Your task to perform on an android device: What's a good restaurant in Los Angeles? Image 0: 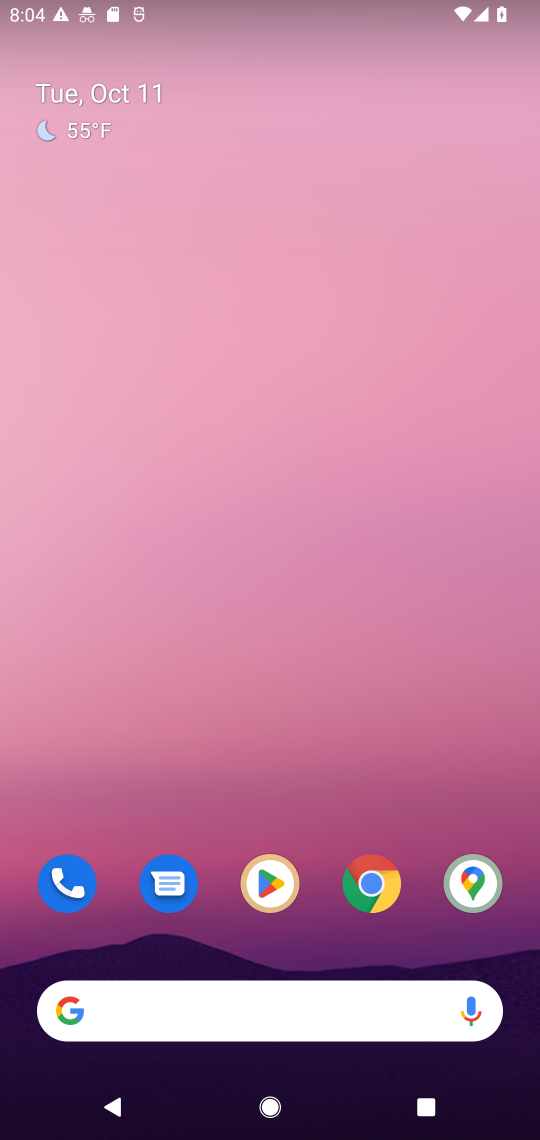
Step 0: drag from (316, 961) to (406, 183)
Your task to perform on an android device: What's a good restaurant in Los Angeles? Image 1: 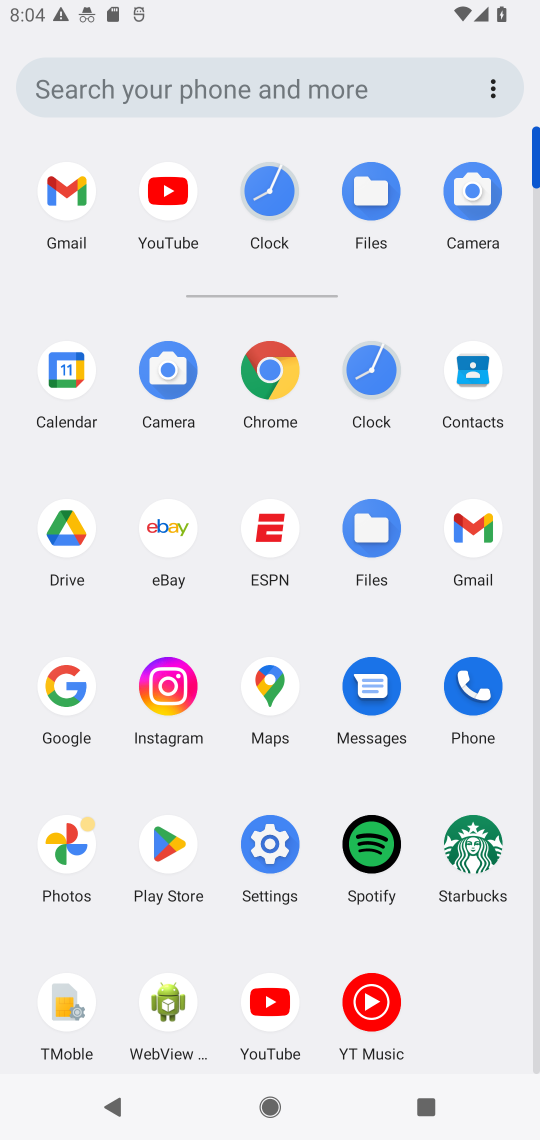
Step 1: click (264, 367)
Your task to perform on an android device: What's a good restaurant in Los Angeles? Image 2: 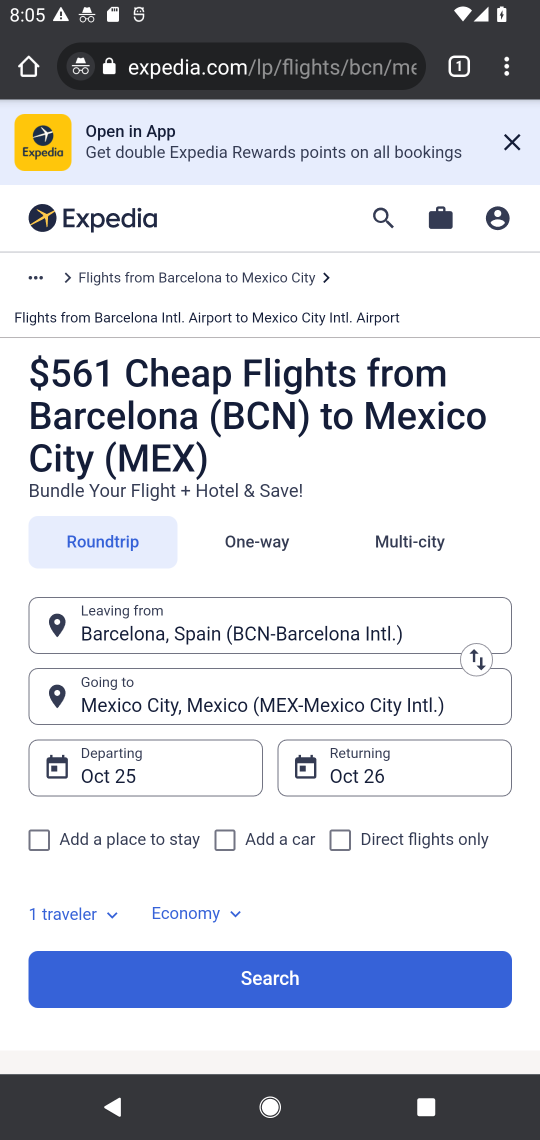
Step 2: click (281, 67)
Your task to perform on an android device: What's a good restaurant in Los Angeles? Image 3: 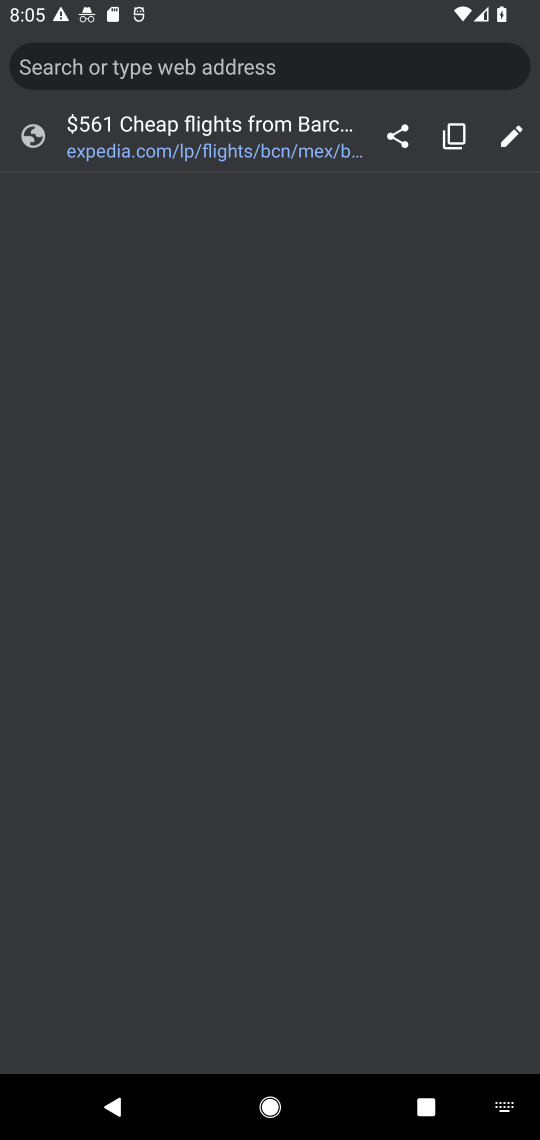
Step 3: type "What's good restaurant in Los Angeles?"
Your task to perform on an android device: What's a good restaurant in Los Angeles? Image 4: 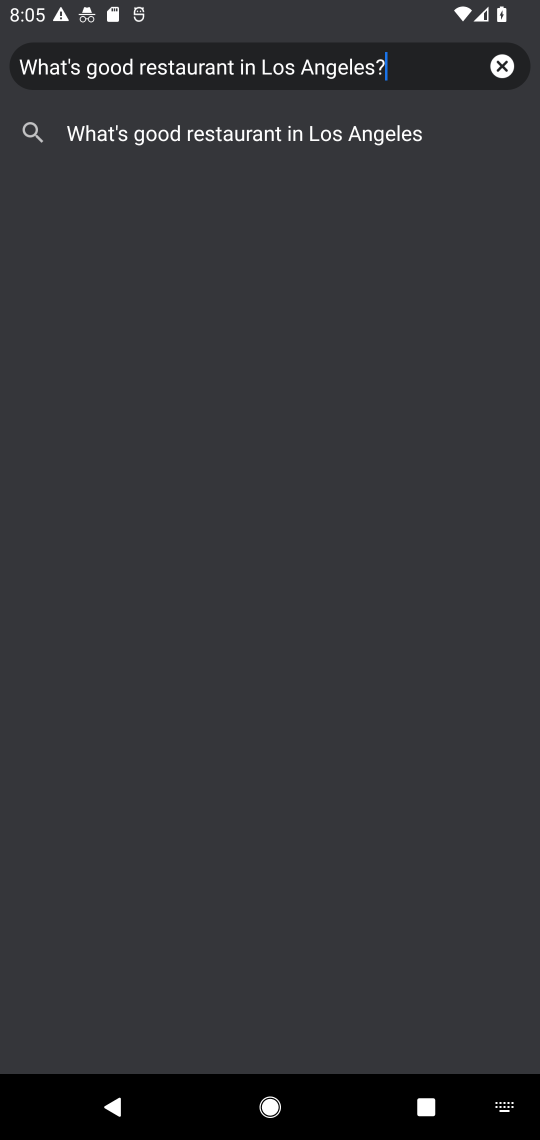
Step 4: press enter
Your task to perform on an android device: What's a good restaurant in Los Angeles? Image 5: 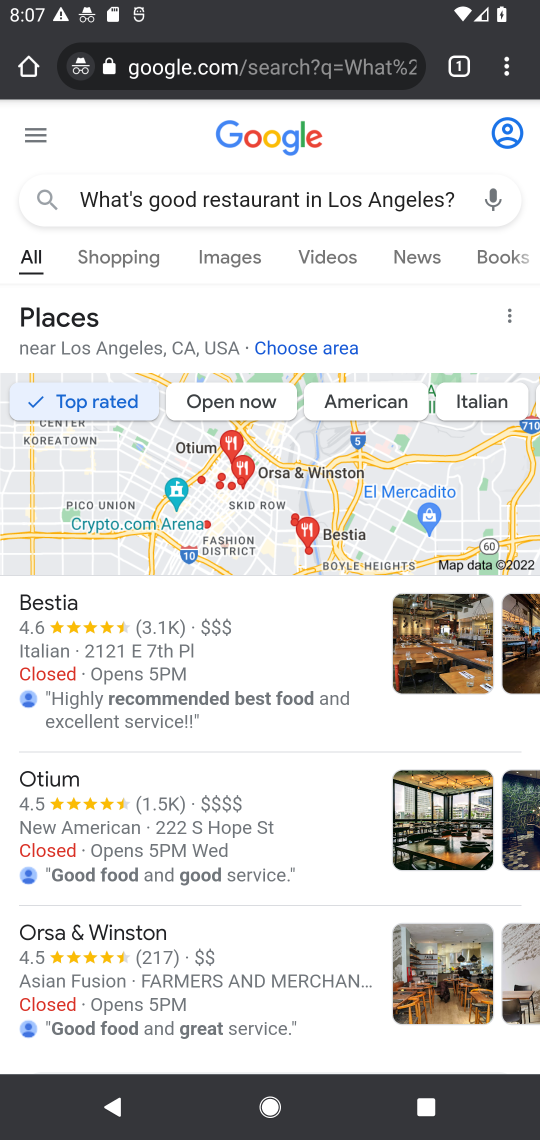
Step 5: task complete